Your task to perform on an android device: Show me recent news Image 0: 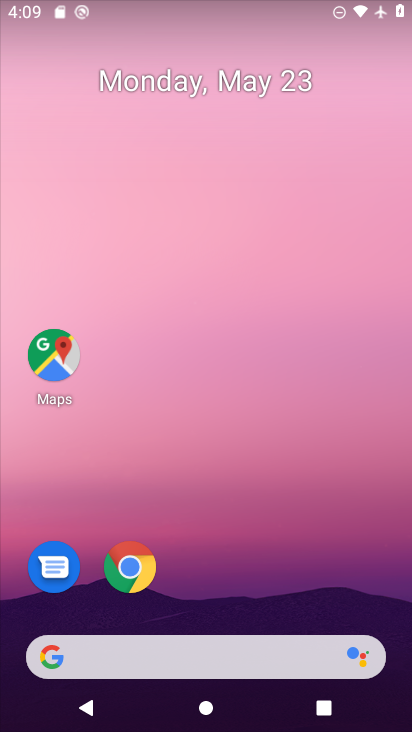
Step 0: drag from (42, 479) to (398, 524)
Your task to perform on an android device: Show me recent news Image 1: 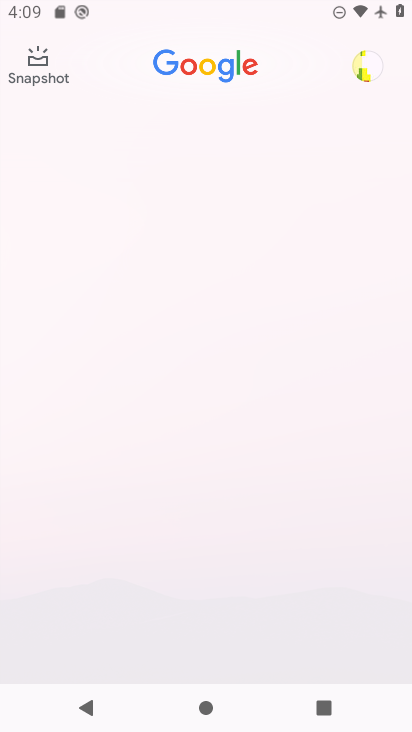
Step 1: drag from (195, 250) to (276, 701)
Your task to perform on an android device: Show me recent news Image 2: 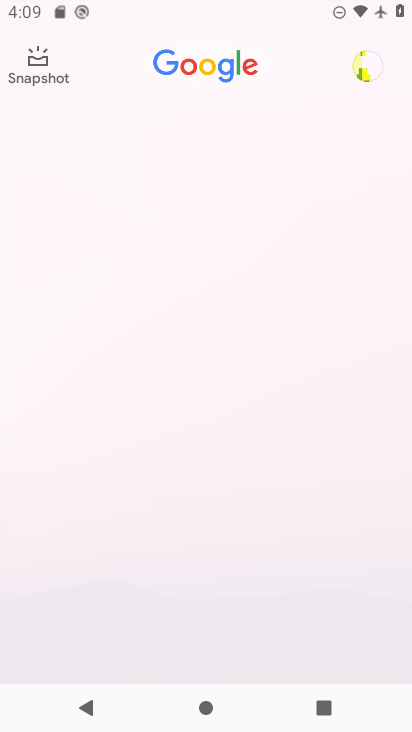
Step 2: drag from (203, 293) to (231, 613)
Your task to perform on an android device: Show me recent news Image 3: 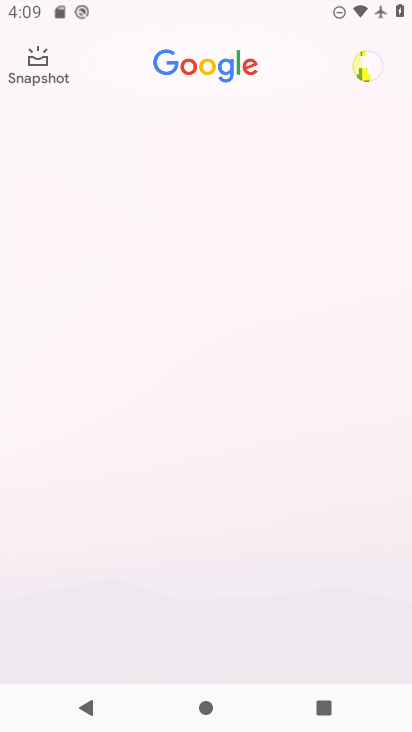
Step 3: press back button
Your task to perform on an android device: Show me recent news Image 4: 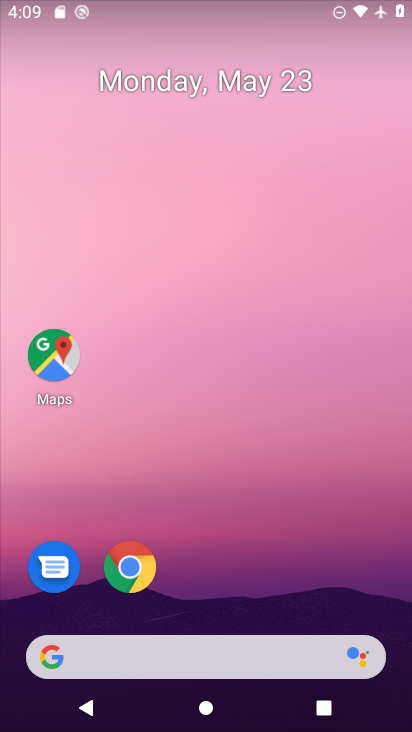
Step 4: click (238, 664)
Your task to perform on an android device: Show me recent news Image 5: 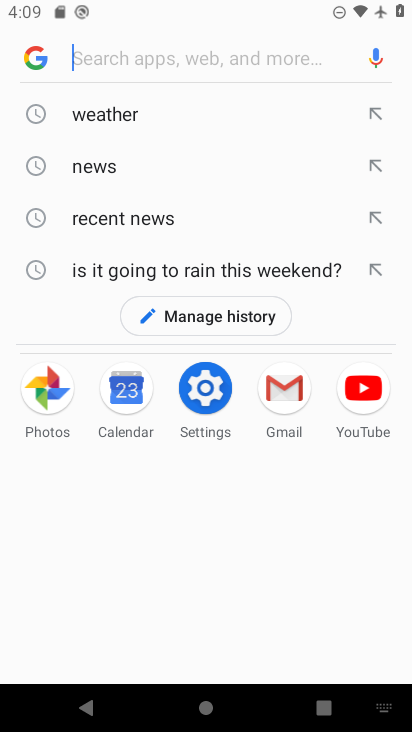
Step 5: click (79, 168)
Your task to perform on an android device: Show me recent news Image 6: 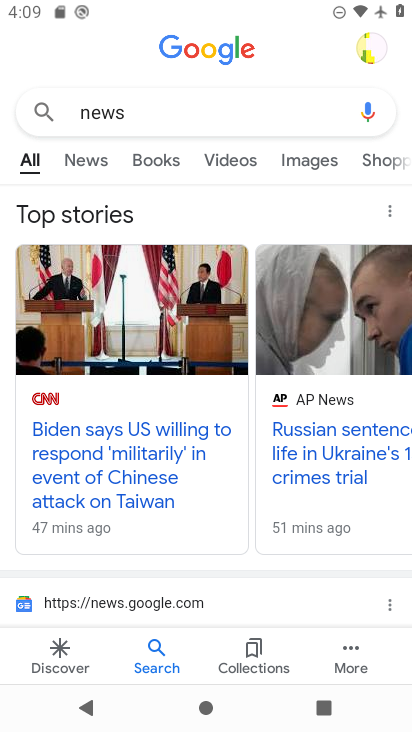
Step 6: task complete